Your task to perform on an android device: Open Yahoo.com Image 0: 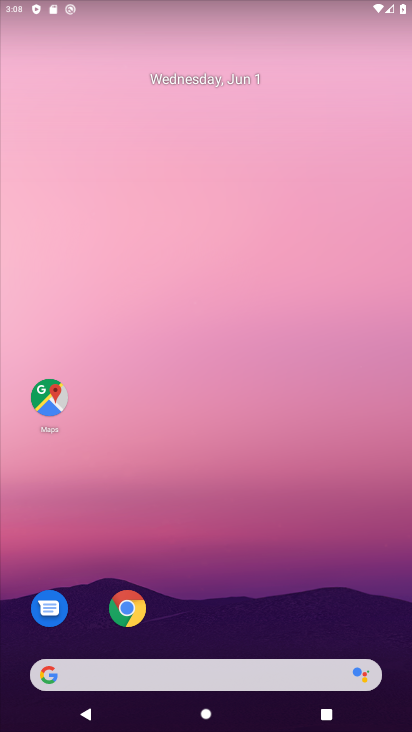
Step 0: click (123, 612)
Your task to perform on an android device: Open Yahoo.com Image 1: 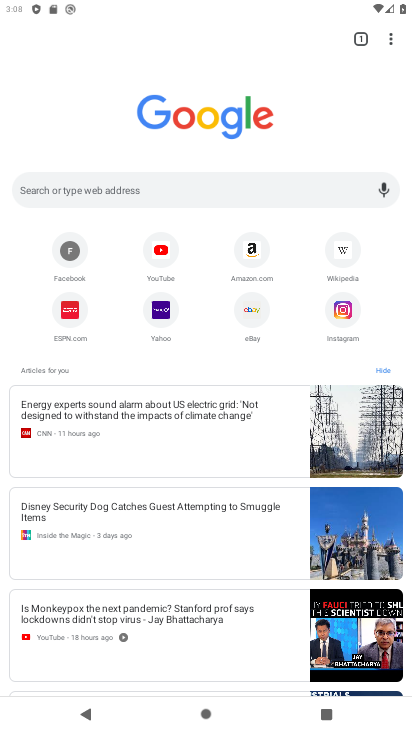
Step 1: click (160, 327)
Your task to perform on an android device: Open Yahoo.com Image 2: 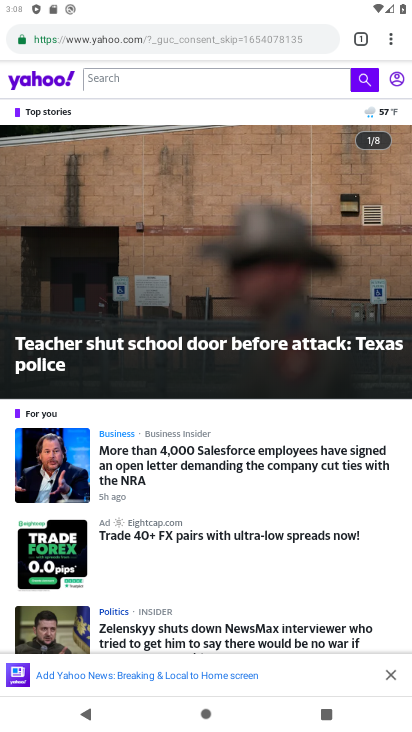
Step 2: task complete